Your task to perform on an android device: Open ESPN.com Image 0: 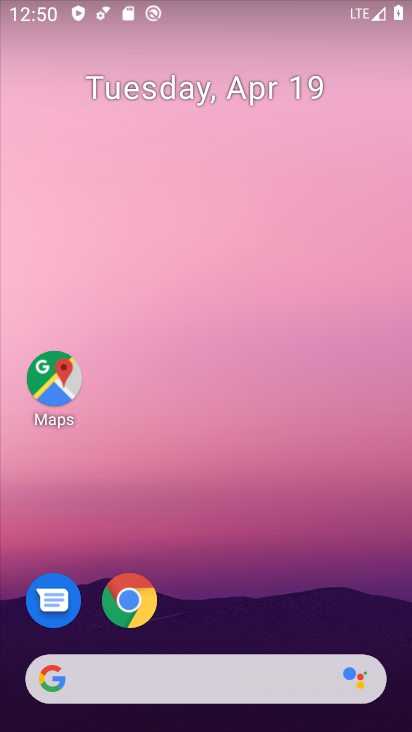
Step 0: click (137, 600)
Your task to perform on an android device: Open ESPN.com Image 1: 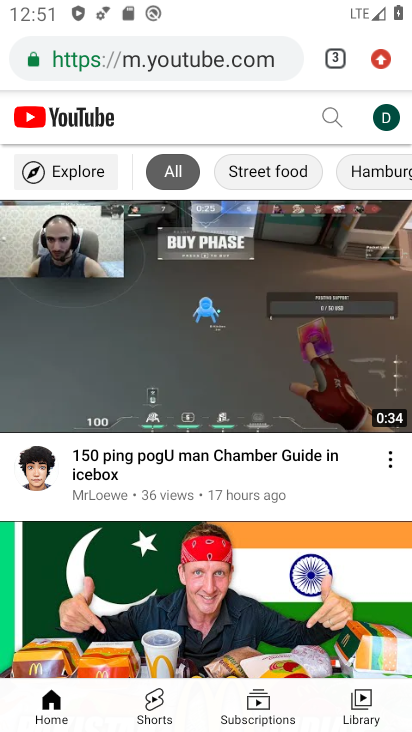
Step 1: click (333, 44)
Your task to perform on an android device: Open ESPN.com Image 2: 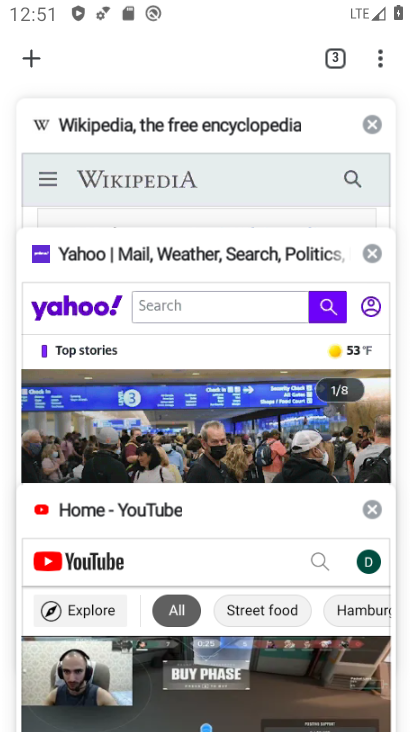
Step 2: click (35, 59)
Your task to perform on an android device: Open ESPN.com Image 3: 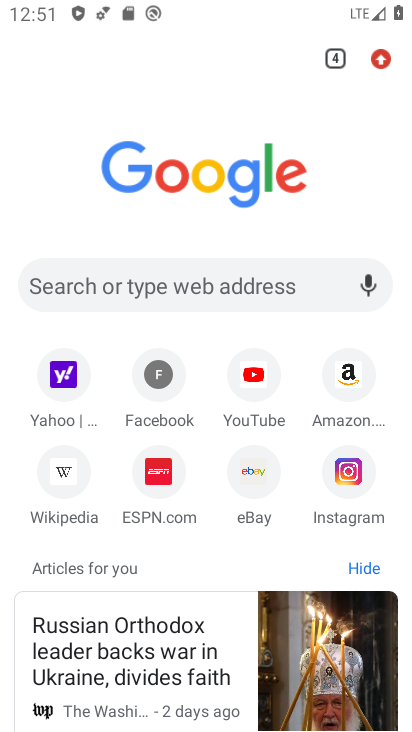
Step 3: click (162, 474)
Your task to perform on an android device: Open ESPN.com Image 4: 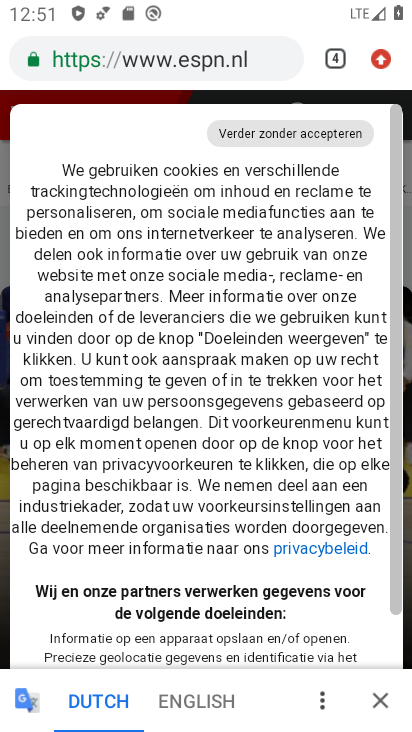
Step 4: task complete